Your task to perform on an android device: Open Maps and search for coffee Image 0: 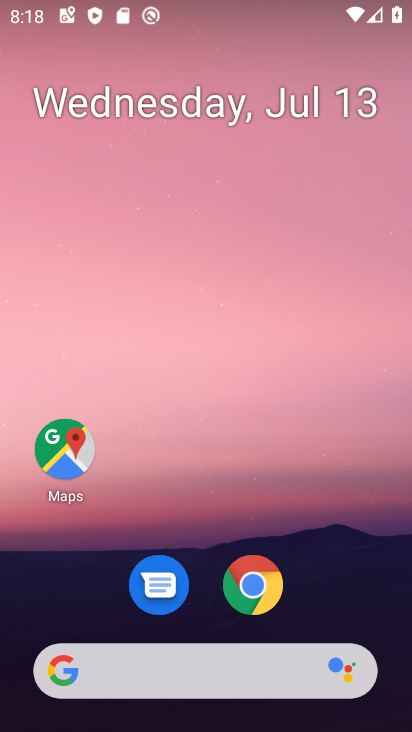
Step 0: click (62, 446)
Your task to perform on an android device: Open Maps and search for coffee Image 1: 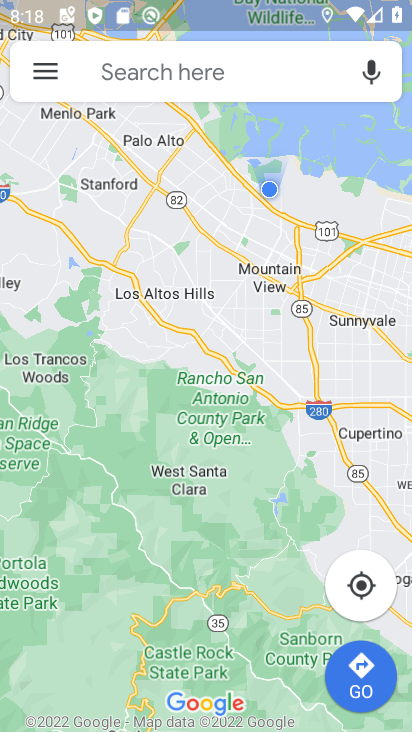
Step 1: click (251, 69)
Your task to perform on an android device: Open Maps and search for coffee Image 2: 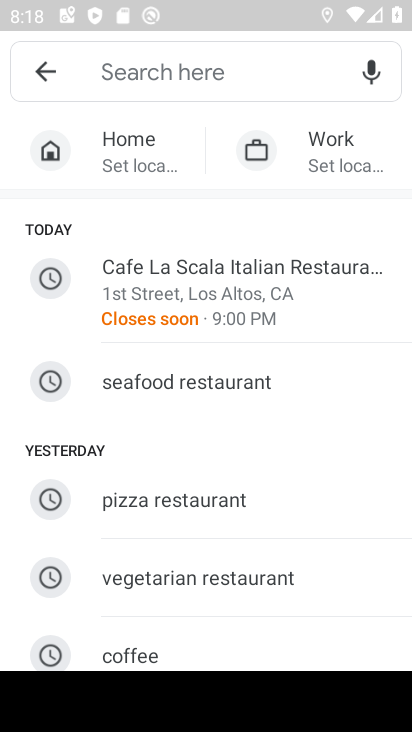
Step 2: drag from (198, 442) to (198, 259)
Your task to perform on an android device: Open Maps and search for coffee Image 3: 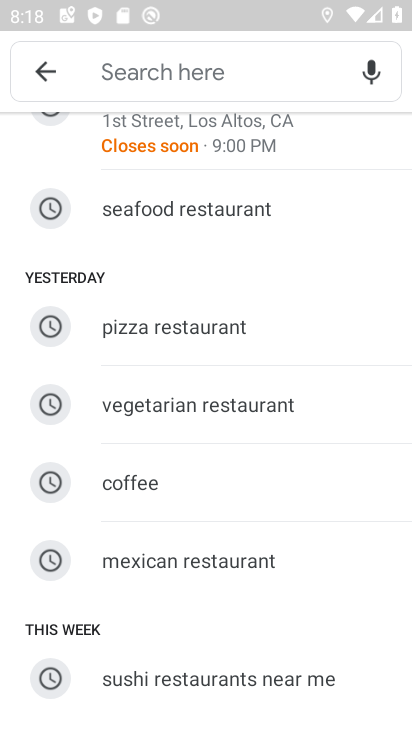
Step 3: click (145, 468)
Your task to perform on an android device: Open Maps and search for coffee Image 4: 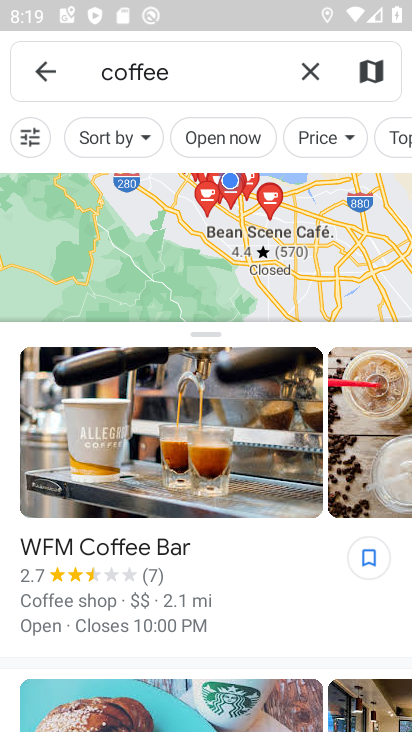
Step 4: task complete